Your task to perform on an android device: find photos in the google photos app Image 0: 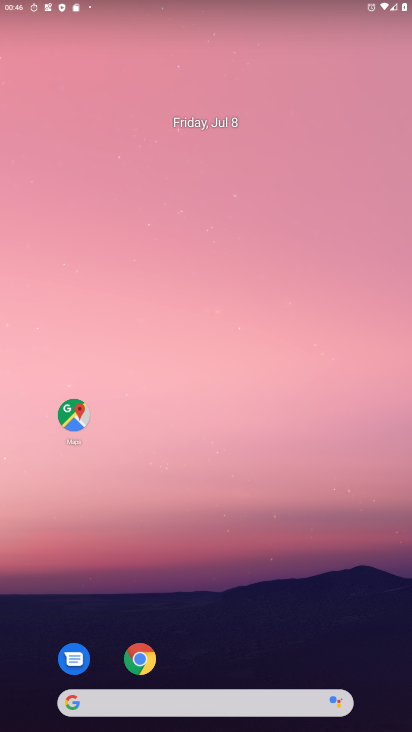
Step 0: drag from (228, 648) to (269, 7)
Your task to perform on an android device: find photos in the google photos app Image 1: 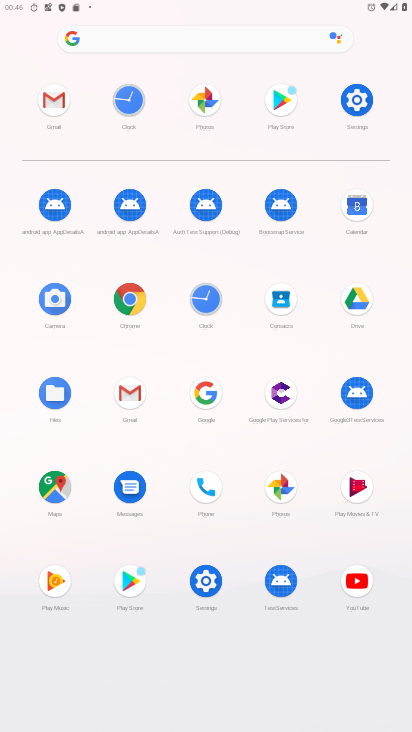
Step 1: click (208, 144)
Your task to perform on an android device: find photos in the google photos app Image 2: 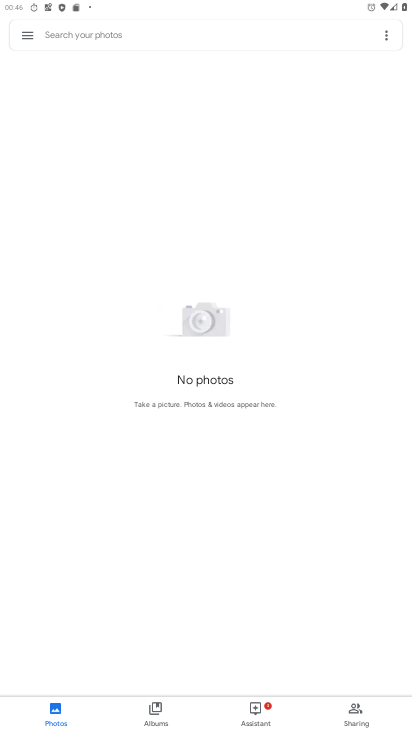
Step 2: task complete